Your task to perform on an android device: set the timer Image 0: 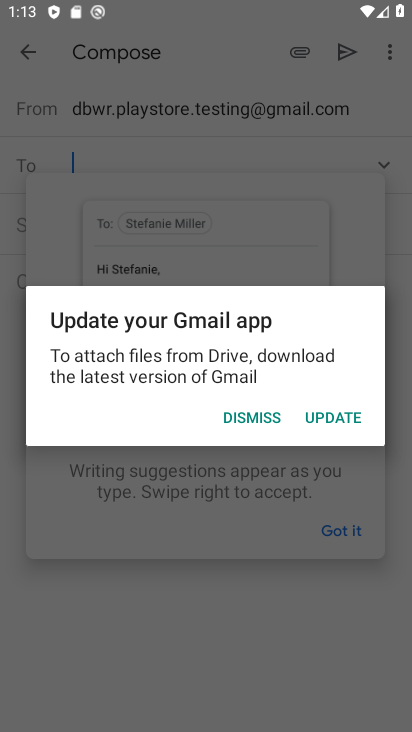
Step 0: press home button
Your task to perform on an android device: set the timer Image 1: 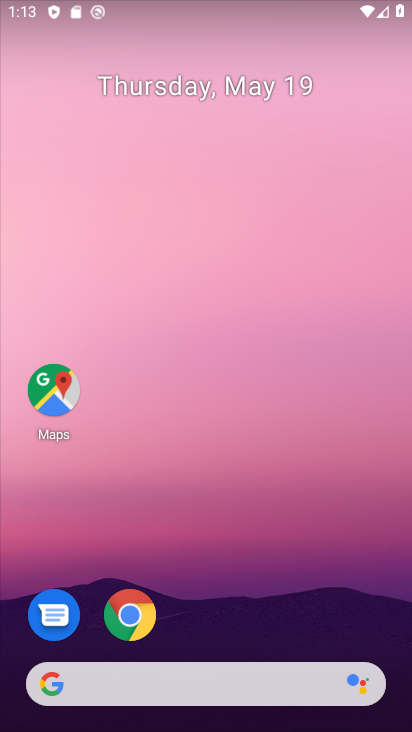
Step 1: drag from (247, 621) to (339, 145)
Your task to perform on an android device: set the timer Image 2: 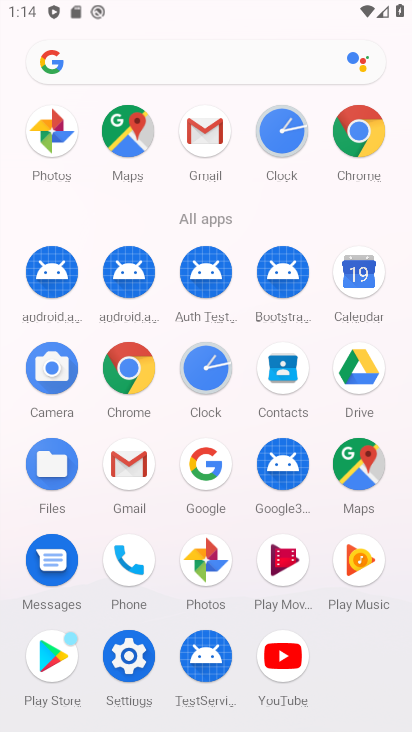
Step 2: click (288, 130)
Your task to perform on an android device: set the timer Image 3: 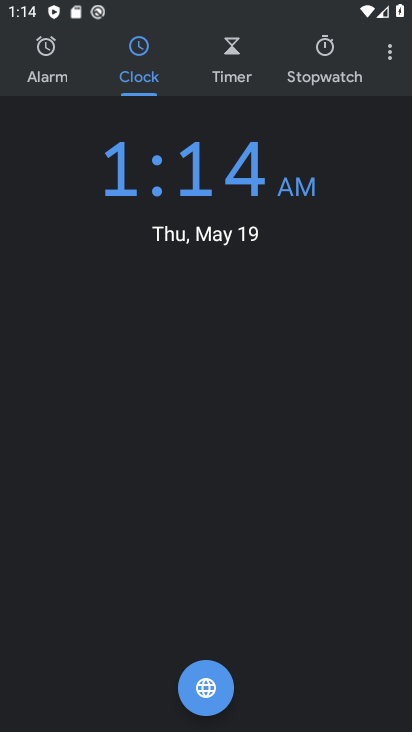
Step 3: click (239, 62)
Your task to perform on an android device: set the timer Image 4: 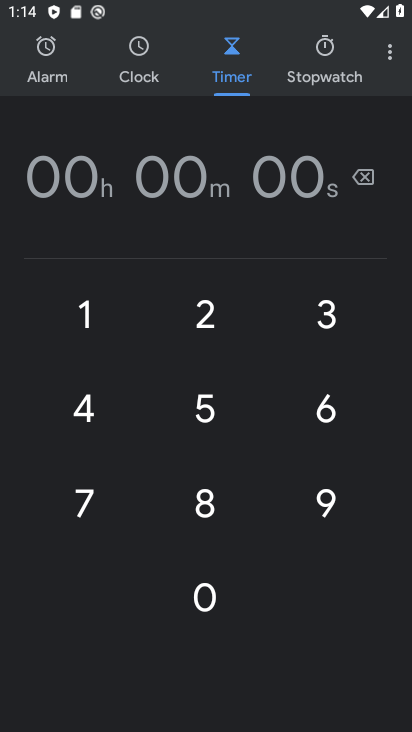
Step 4: click (201, 380)
Your task to perform on an android device: set the timer Image 5: 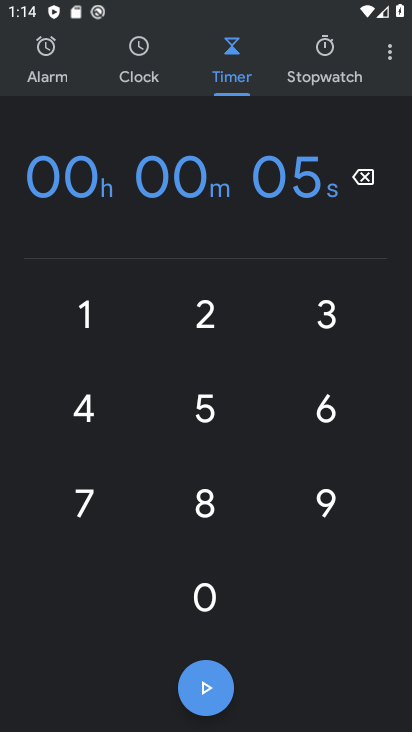
Step 5: task complete